Your task to perform on an android device: search for starred emails in the gmail app Image 0: 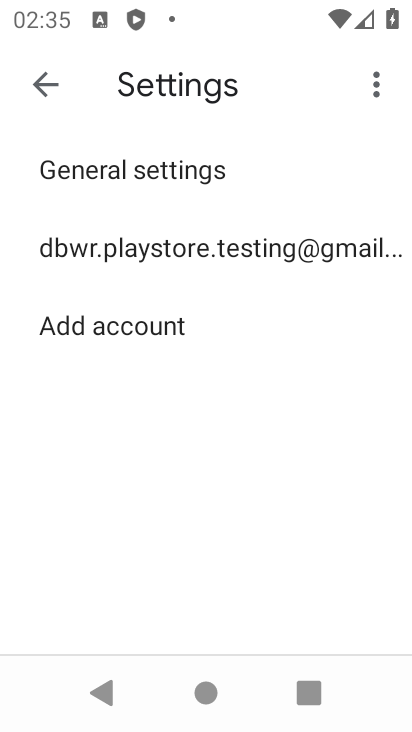
Step 0: press home button
Your task to perform on an android device: search for starred emails in the gmail app Image 1: 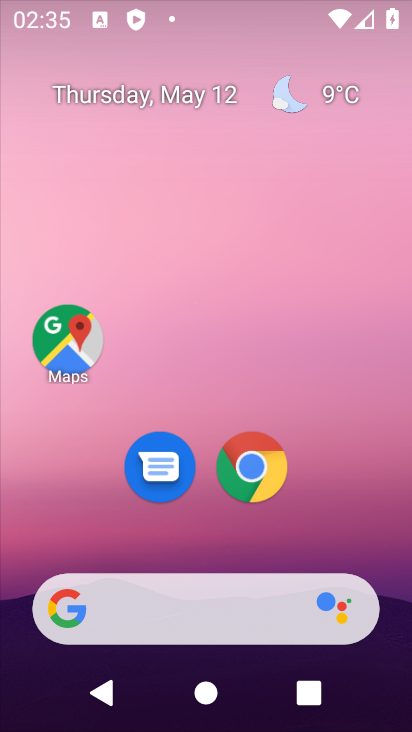
Step 1: drag from (225, 477) to (256, 205)
Your task to perform on an android device: search for starred emails in the gmail app Image 2: 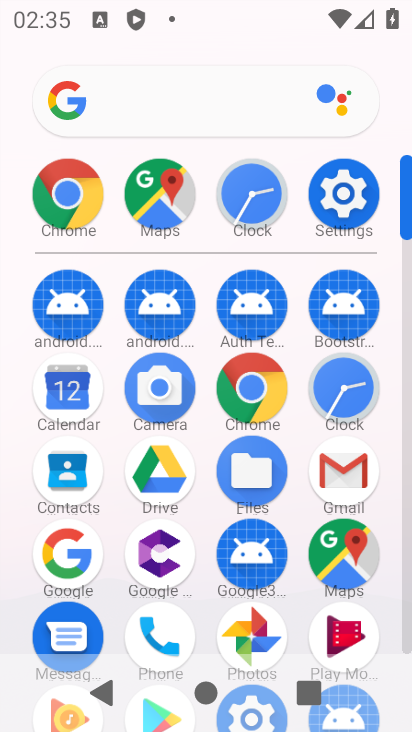
Step 2: click (343, 458)
Your task to perform on an android device: search for starred emails in the gmail app Image 3: 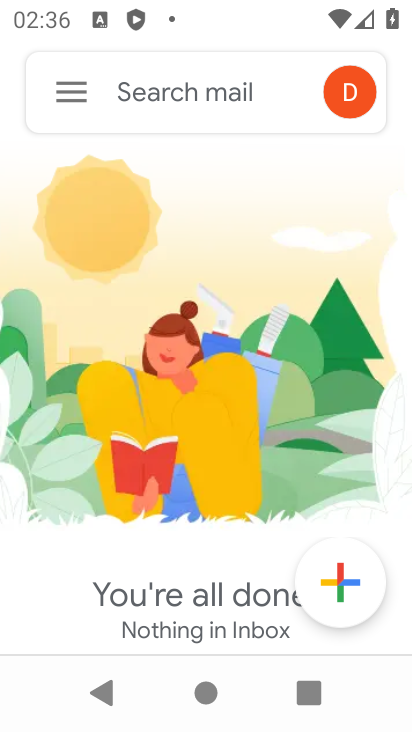
Step 3: click (70, 86)
Your task to perform on an android device: search for starred emails in the gmail app Image 4: 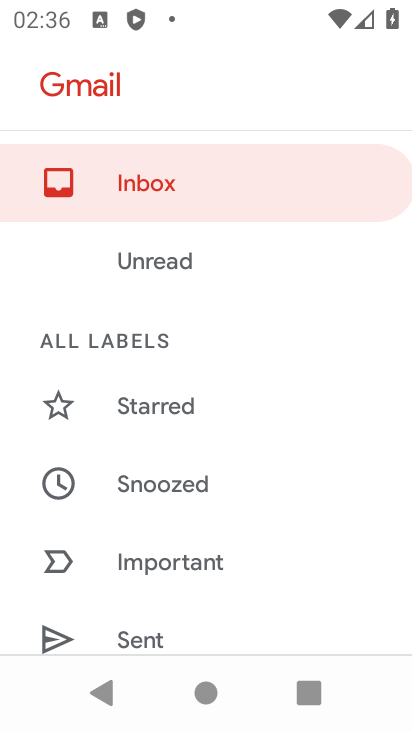
Step 4: click (171, 397)
Your task to perform on an android device: search for starred emails in the gmail app Image 5: 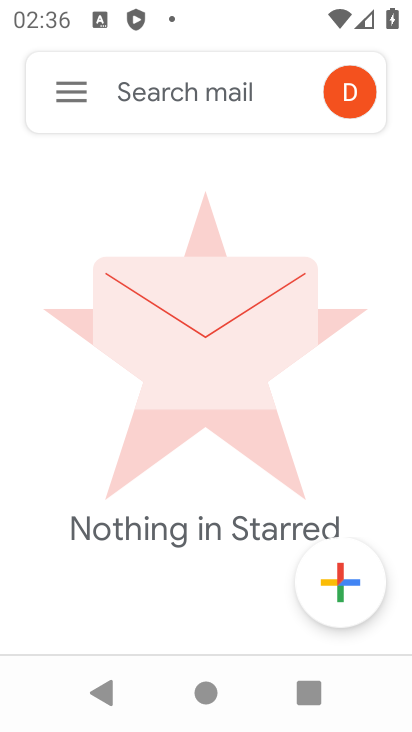
Step 5: task complete